Your task to perform on an android device: open chrome privacy settings Image 0: 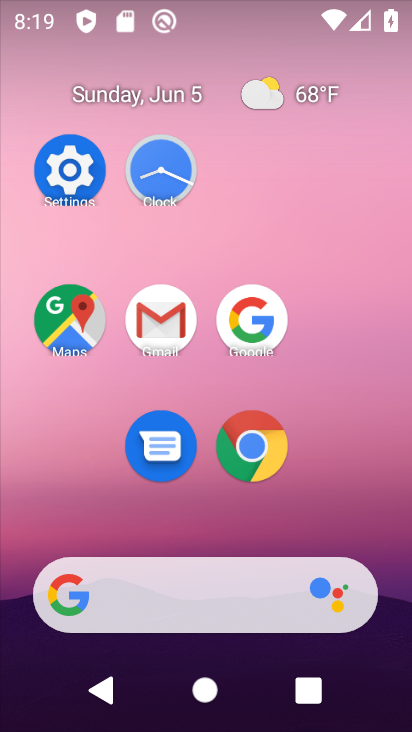
Step 0: click (245, 463)
Your task to perform on an android device: open chrome privacy settings Image 1: 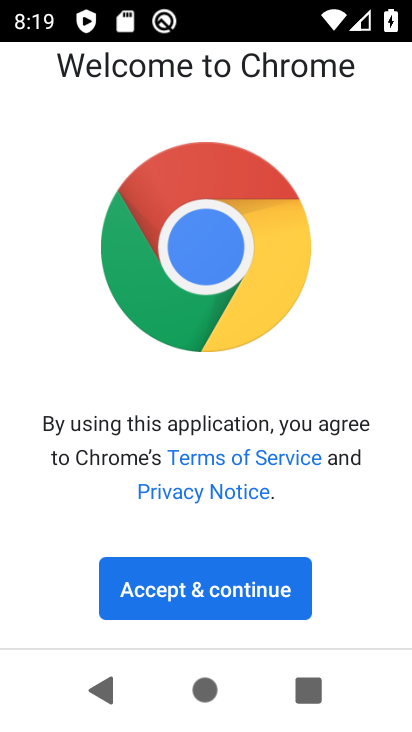
Step 1: click (137, 622)
Your task to perform on an android device: open chrome privacy settings Image 2: 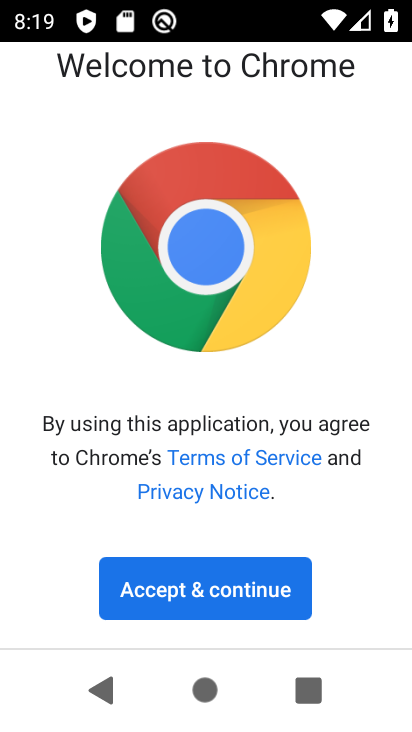
Step 2: click (174, 579)
Your task to perform on an android device: open chrome privacy settings Image 3: 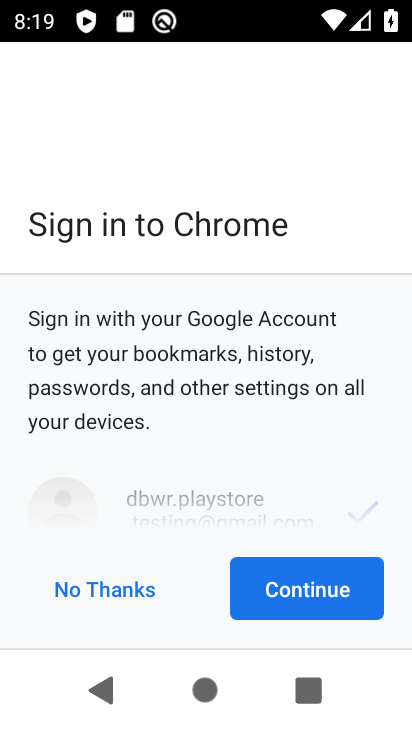
Step 3: click (272, 566)
Your task to perform on an android device: open chrome privacy settings Image 4: 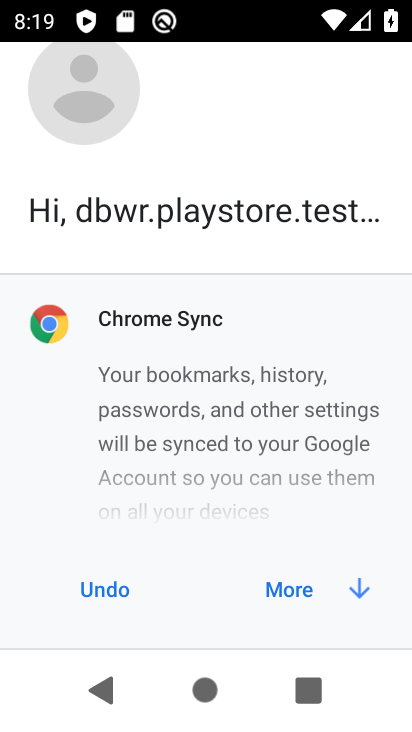
Step 4: click (286, 575)
Your task to perform on an android device: open chrome privacy settings Image 5: 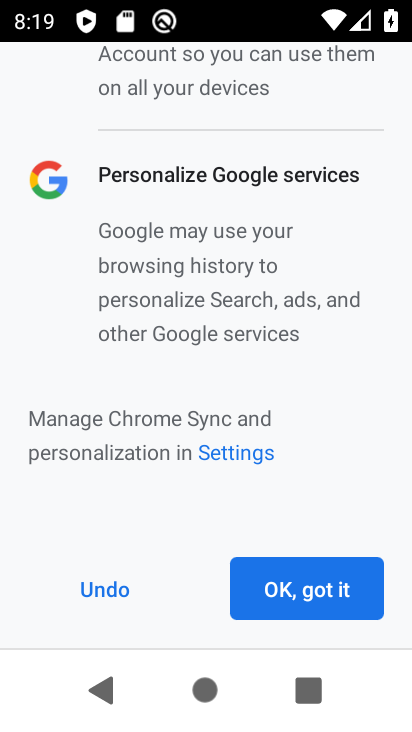
Step 5: click (281, 589)
Your task to perform on an android device: open chrome privacy settings Image 6: 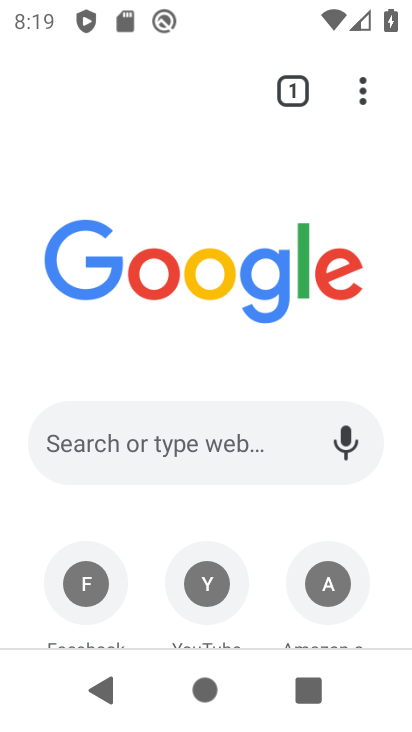
Step 6: click (356, 92)
Your task to perform on an android device: open chrome privacy settings Image 7: 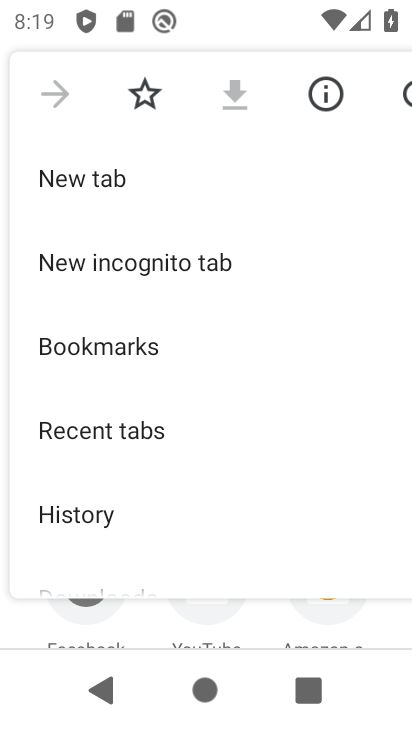
Step 7: drag from (269, 502) to (293, 164)
Your task to perform on an android device: open chrome privacy settings Image 8: 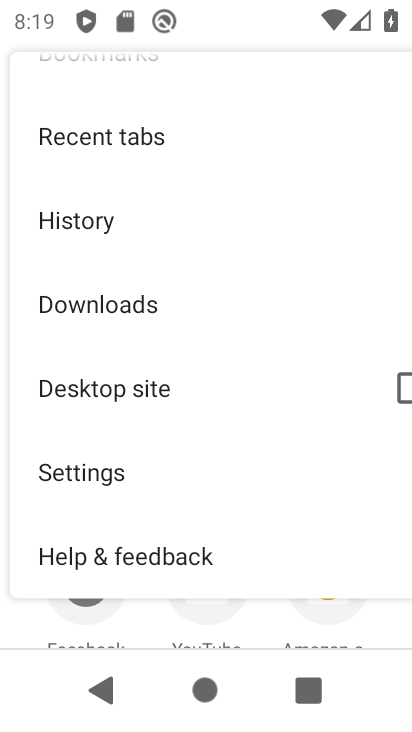
Step 8: click (227, 458)
Your task to perform on an android device: open chrome privacy settings Image 9: 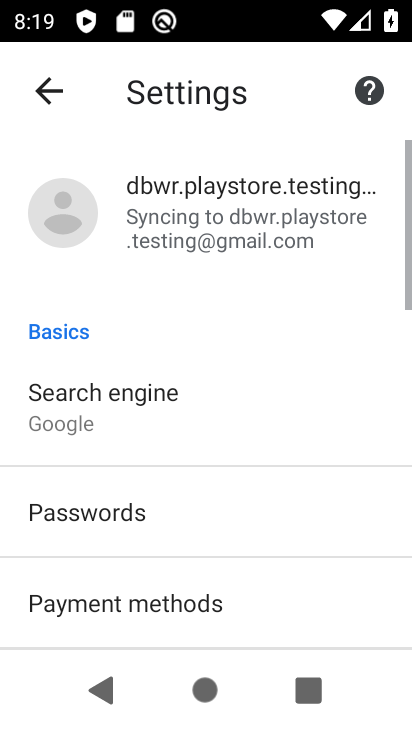
Step 9: drag from (226, 458) to (217, 162)
Your task to perform on an android device: open chrome privacy settings Image 10: 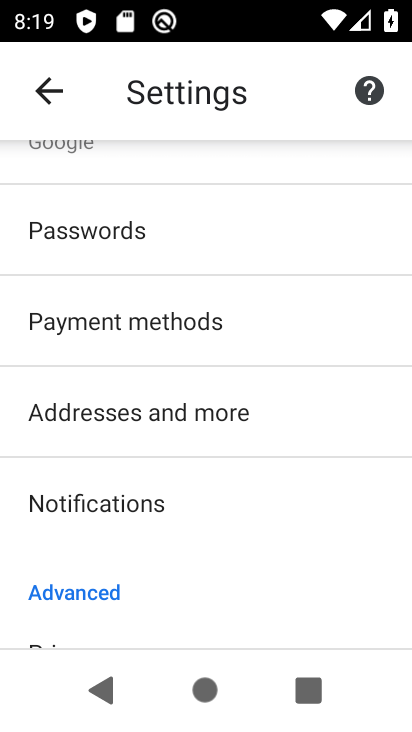
Step 10: drag from (234, 449) to (246, 161)
Your task to perform on an android device: open chrome privacy settings Image 11: 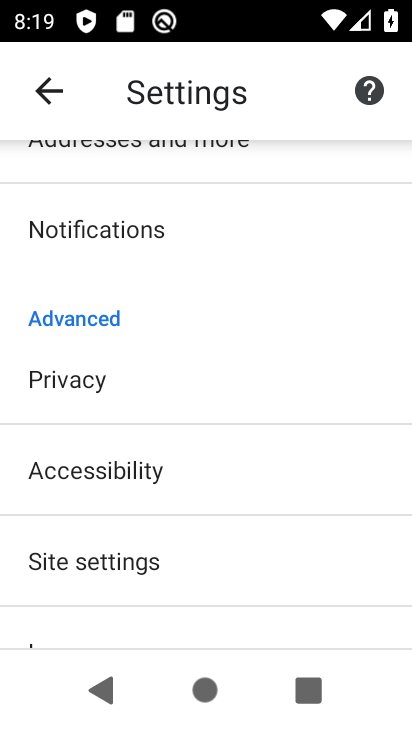
Step 11: drag from (201, 502) to (208, 389)
Your task to perform on an android device: open chrome privacy settings Image 12: 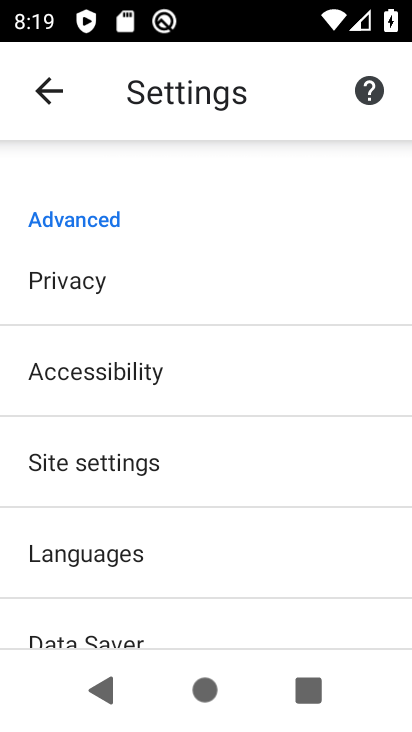
Step 12: click (104, 267)
Your task to perform on an android device: open chrome privacy settings Image 13: 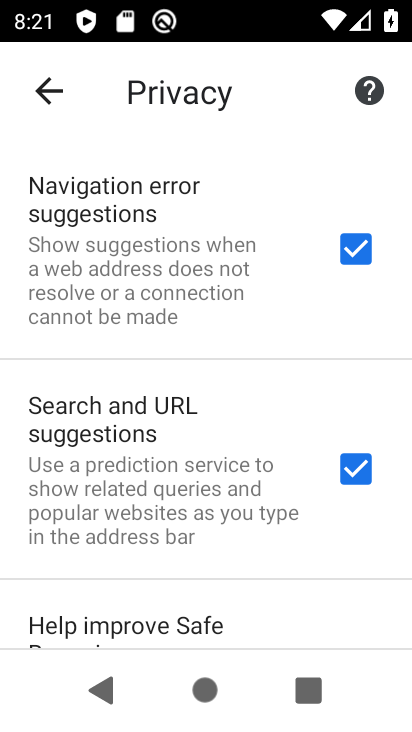
Step 13: task complete